Your task to perform on an android device: change timer sound Image 0: 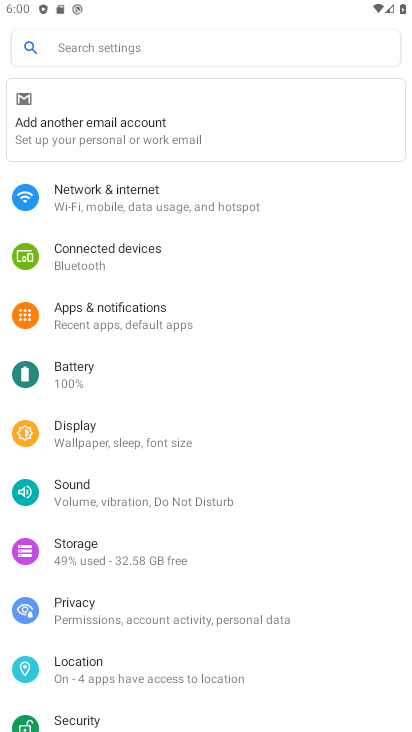
Step 0: press home button
Your task to perform on an android device: change timer sound Image 1: 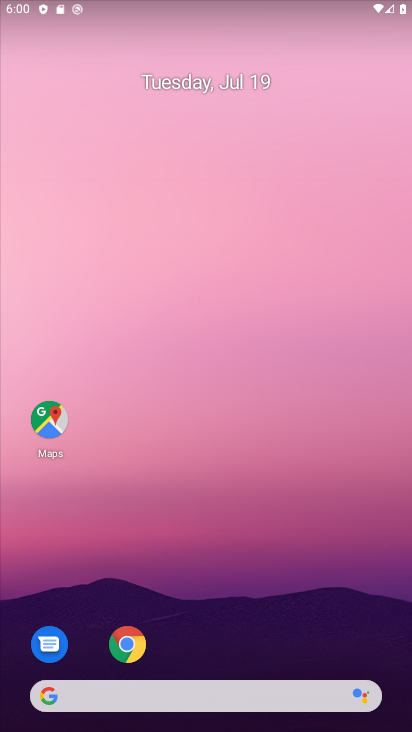
Step 1: drag from (235, 379) to (229, 174)
Your task to perform on an android device: change timer sound Image 2: 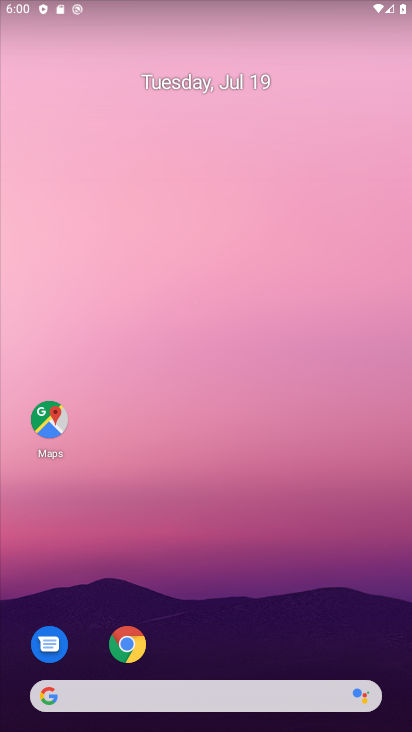
Step 2: drag from (229, 371) to (179, 175)
Your task to perform on an android device: change timer sound Image 3: 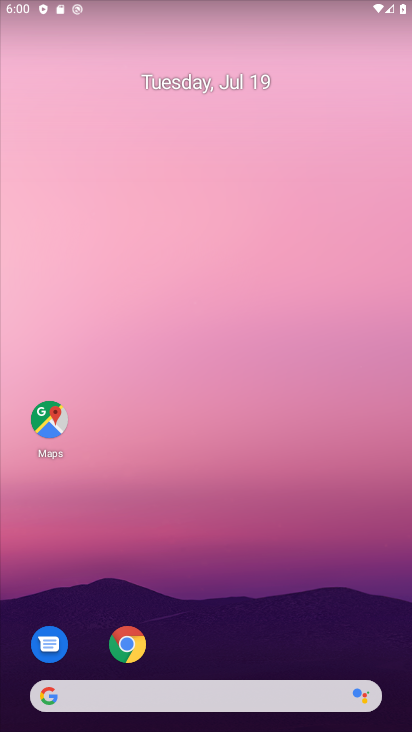
Step 3: drag from (212, 303) to (183, 207)
Your task to perform on an android device: change timer sound Image 4: 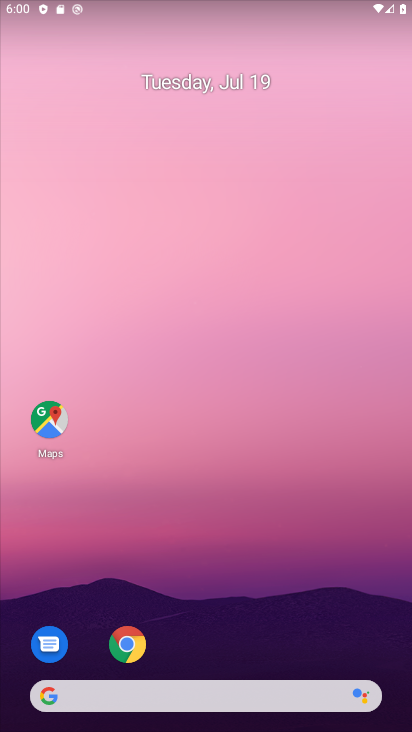
Step 4: drag from (238, 585) to (212, 204)
Your task to perform on an android device: change timer sound Image 5: 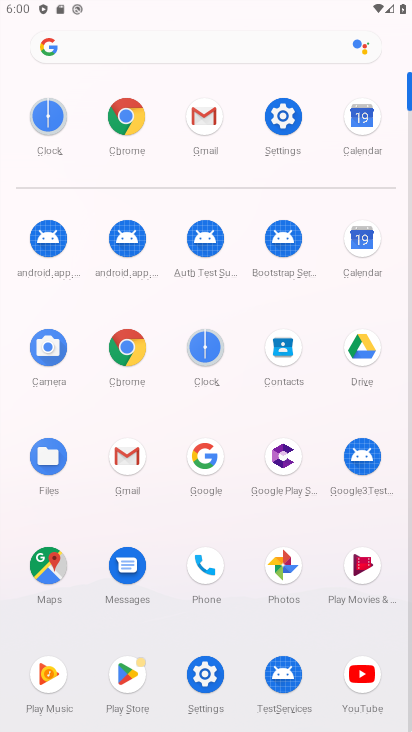
Step 5: click (210, 357)
Your task to perform on an android device: change timer sound Image 6: 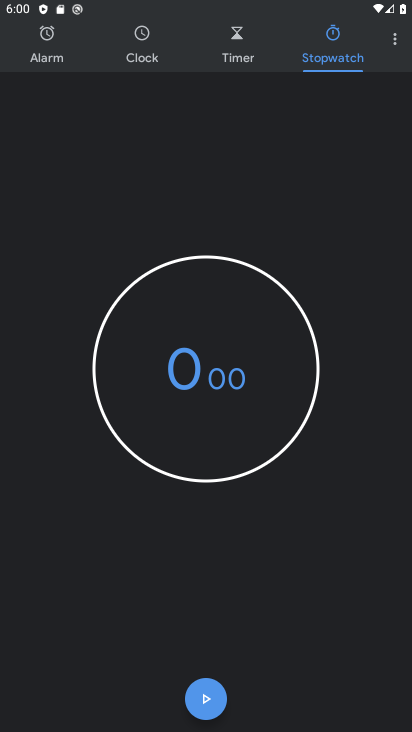
Step 6: click (398, 46)
Your task to perform on an android device: change timer sound Image 7: 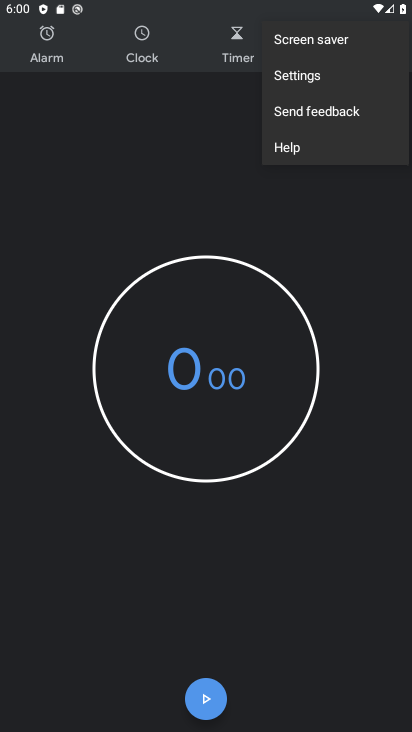
Step 7: click (302, 77)
Your task to perform on an android device: change timer sound Image 8: 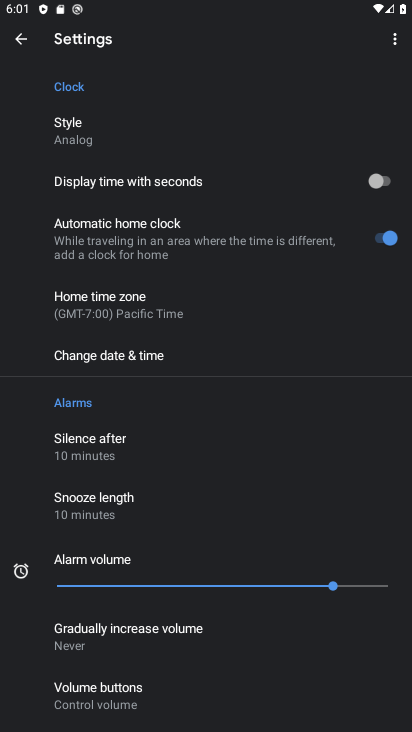
Step 8: drag from (182, 429) to (221, 282)
Your task to perform on an android device: change timer sound Image 9: 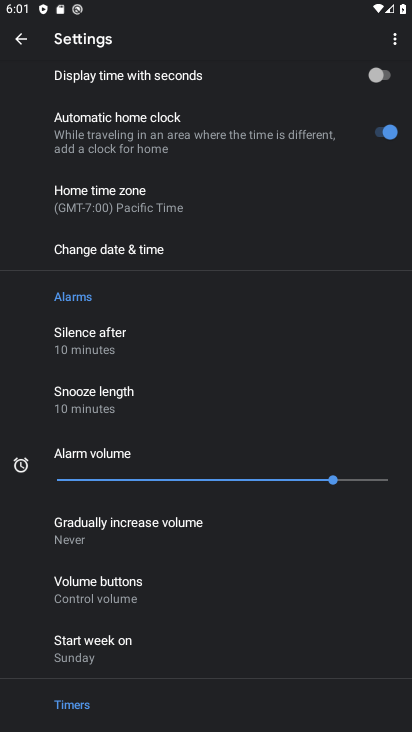
Step 9: drag from (218, 590) to (247, 402)
Your task to perform on an android device: change timer sound Image 10: 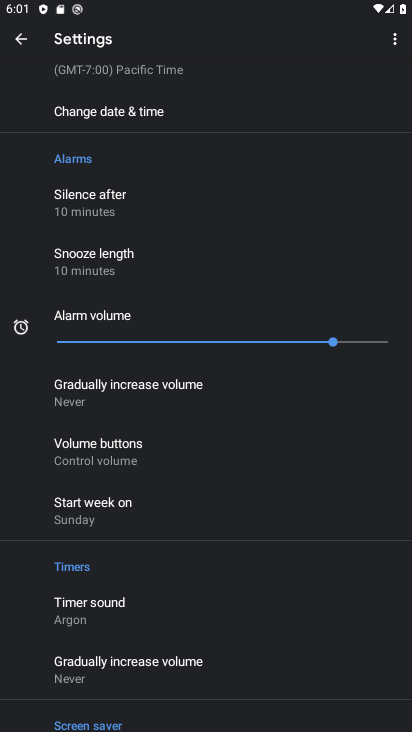
Step 10: click (123, 611)
Your task to perform on an android device: change timer sound Image 11: 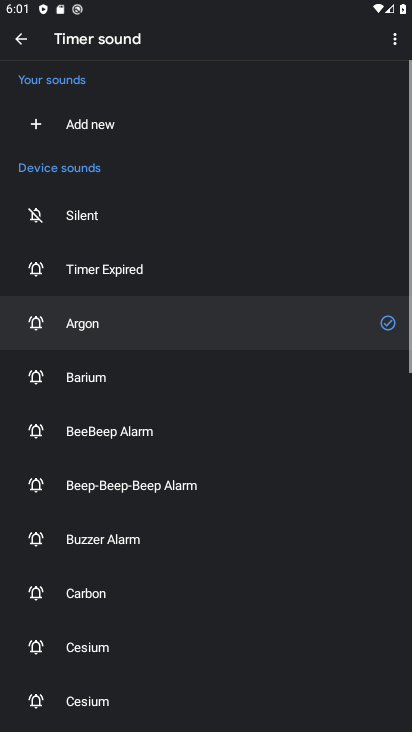
Step 11: click (90, 379)
Your task to perform on an android device: change timer sound Image 12: 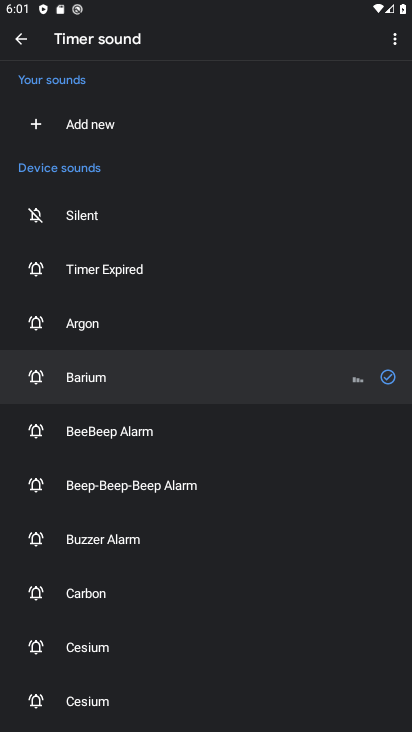
Step 12: task complete